Your task to perform on an android device: Show me recent news Image 0: 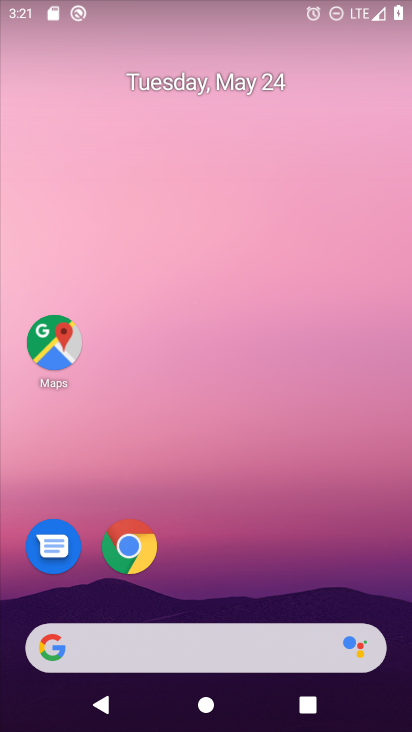
Step 0: drag from (370, 546) to (347, 99)
Your task to perform on an android device: Show me recent news Image 1: 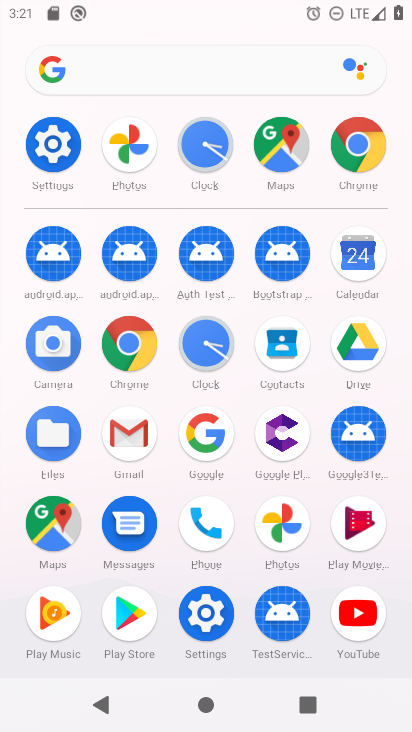
Step 1: click (125, 345)
Your task to perform on an android device: Show me recent news Image 2: 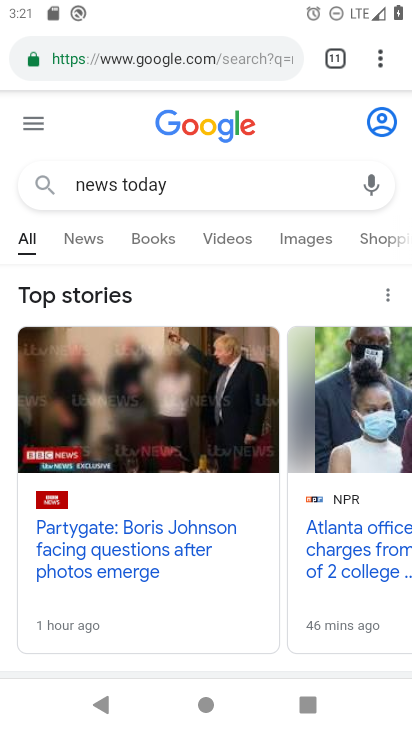
Step 2: click (188, 56)
Your task to perform on an android device: Show me recent news Image 3: 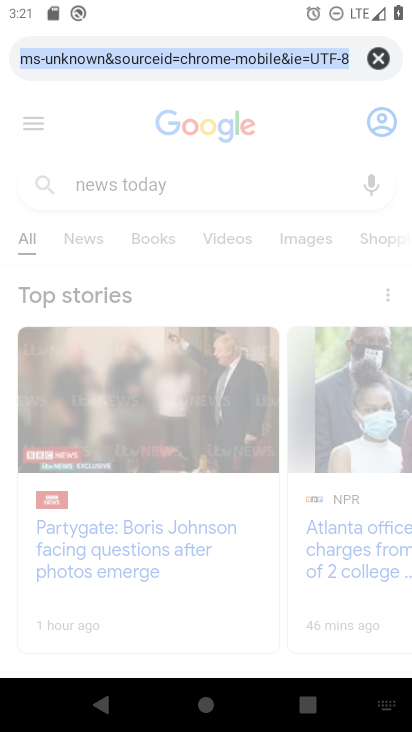
Step 3: click (373, 52)
Your task to perform on an android device: Show me recent news Image 4: 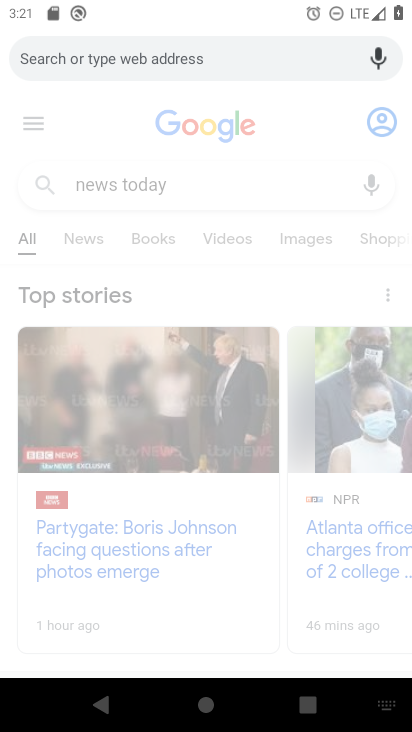
Step 4: type "recent news"
Your task to perform on an android device: Show me recent news Image 5: 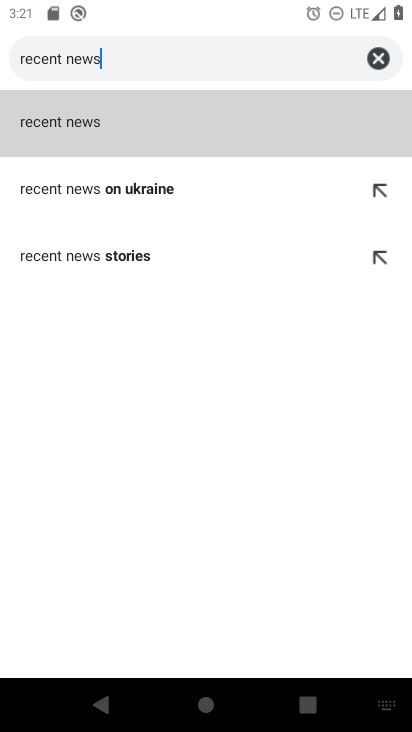
Step 5: click (144, 131)
Your task to perform on an android device: Show me recent news Image 6: 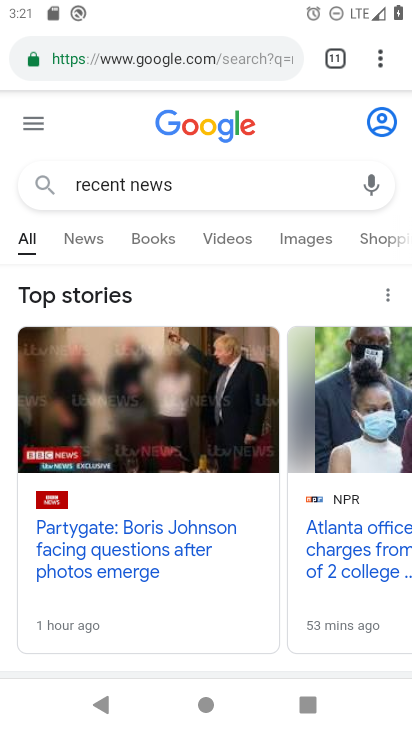
Step 6: task complete